Your task to perform on an android device: turn on airplane mode Image 0: 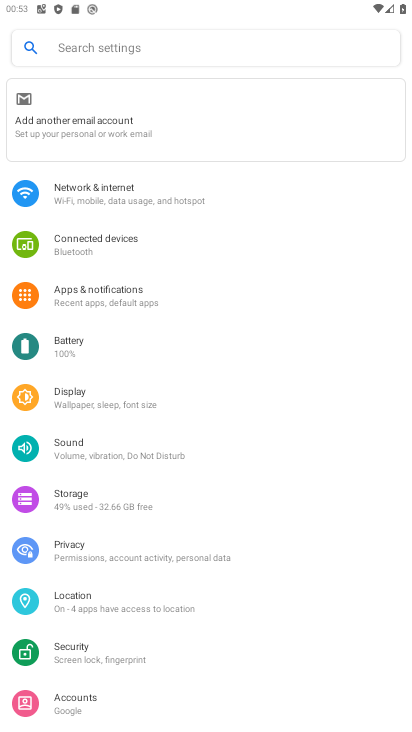
Step 0: press home button
Your task to perform on an android device: turn on airplane mode Image 1: 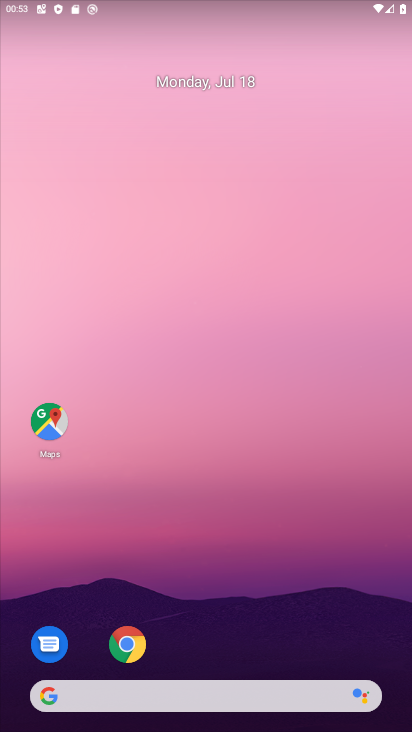
Step 1: drag from (232, 652) to (244, 253)
Your task to perform on an android device: turn on airplane mode Image 2: 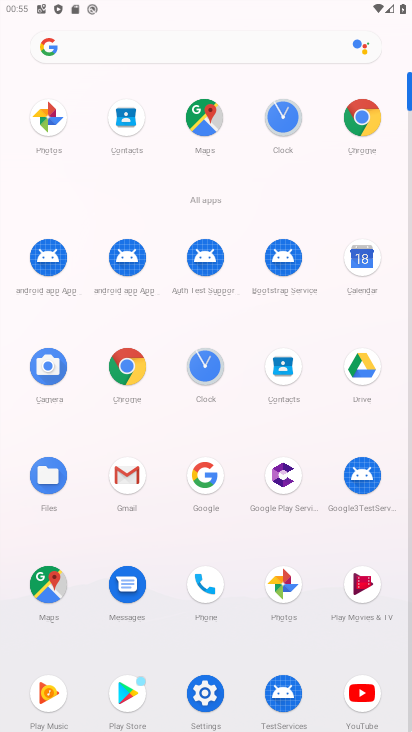
Step 2: drag from (389, 5) to (381, 205)
Your task to perform on an android device: turn on airplane mode Image 3: 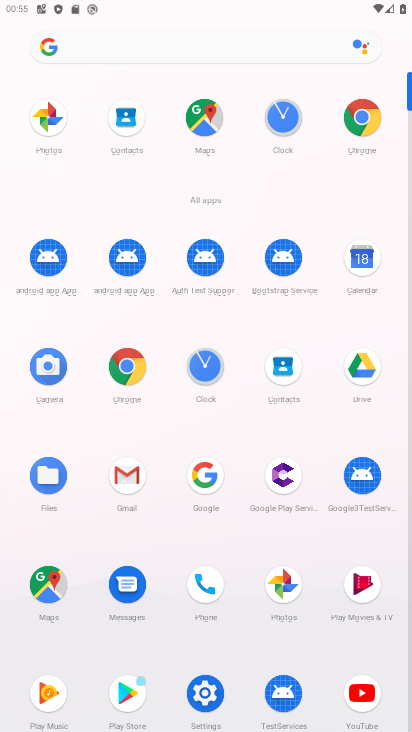
Step 3: drag from (385, 14) to (409, 415)
Your task to perform on an android device: turn on airplane mode Image 4: 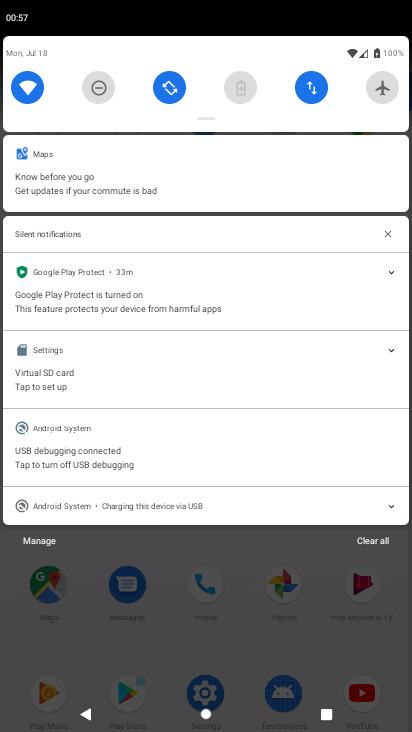
Step 4: click (391, 82)
Your task to perform on an android device: turn on airplane mode Image 5: 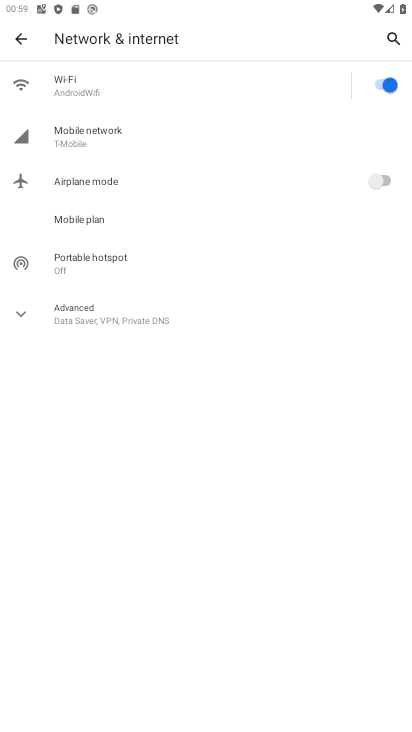
Step 5: drag from (396, 7) to (374, 586)
Your task to perform on an android device: turn on airplane mode Image 6: 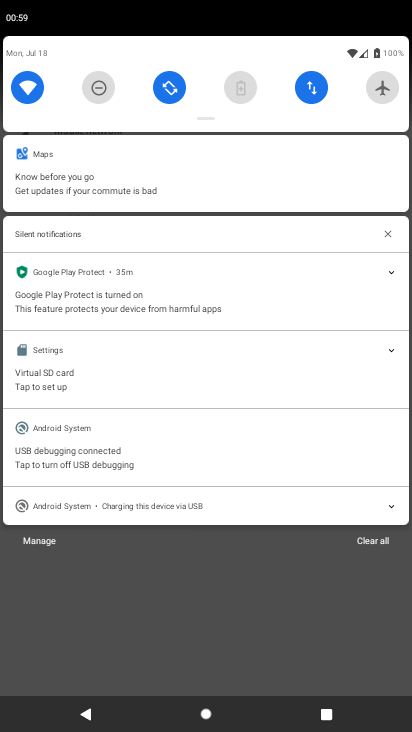
Step 6: click (385, 83)
Your task to perform on an android device: turn on airplane mode Image 7: 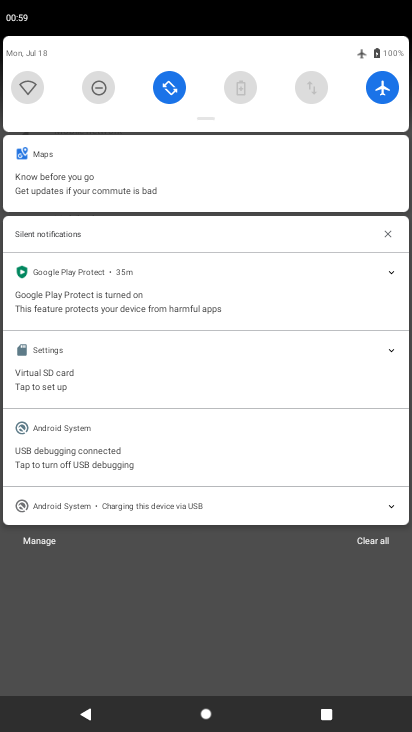
Step 7: task complete